Your task to perform on an android device: check the backup settings in the google photos Image 0: 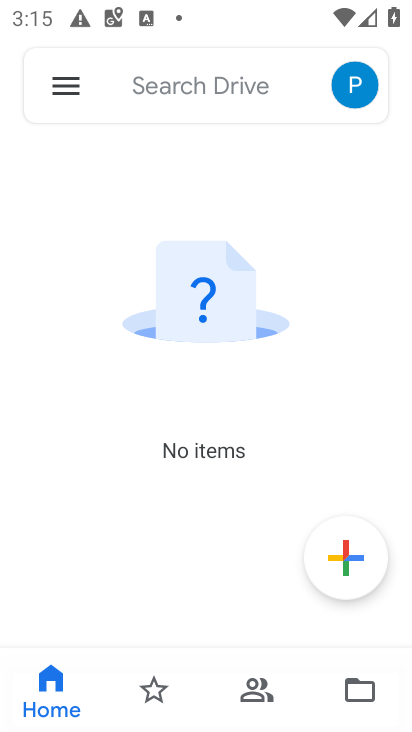
Step 0: press home button
Your task to perform on an android device: check the backup settings in the google photos Image 1: 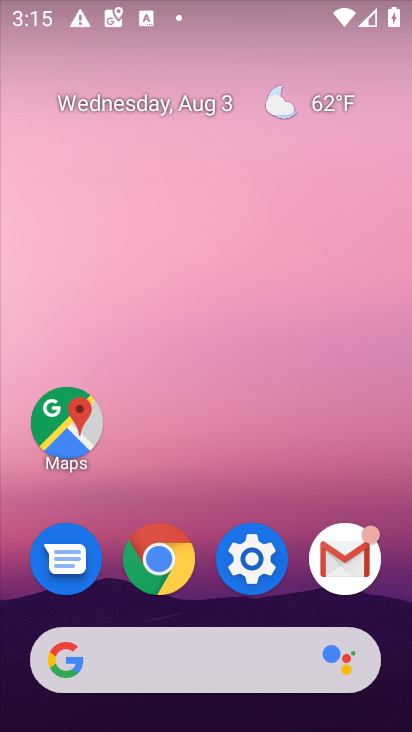
Step 1: drag from (298, 698) to (204, 323)
Your task to perform on an android device: check the backup settings in the google photos Image 2: 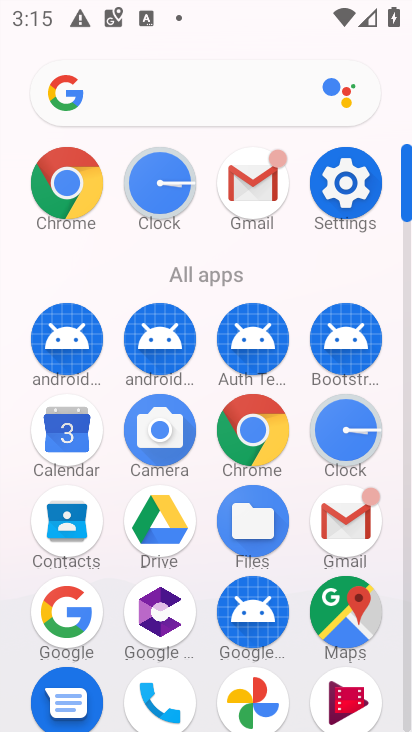
Step 2: click (244, 713)
Your task to perform on an android device: check the backup settings in the google photos Image 3: 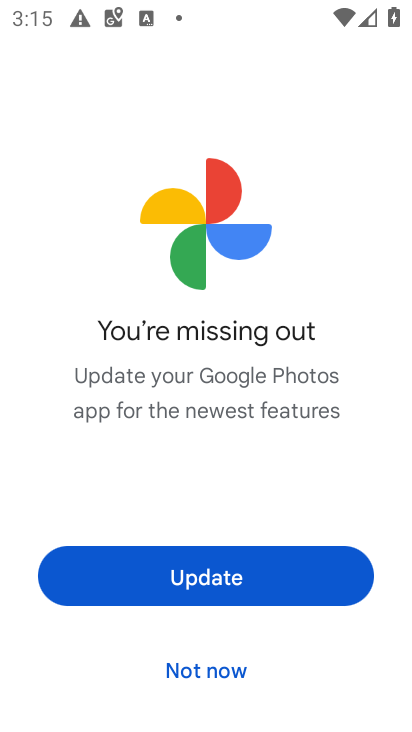
Step 3: click (227, 653)
Your task to perform on an android device: check the backup settings in the google photos Image 4: 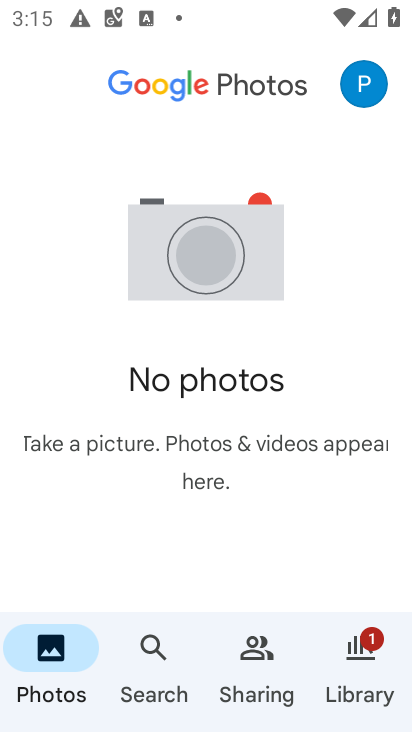
Step 4: click (358, 106)
Your task to perform on an android device: check the backup settings in the google photos Image 5: 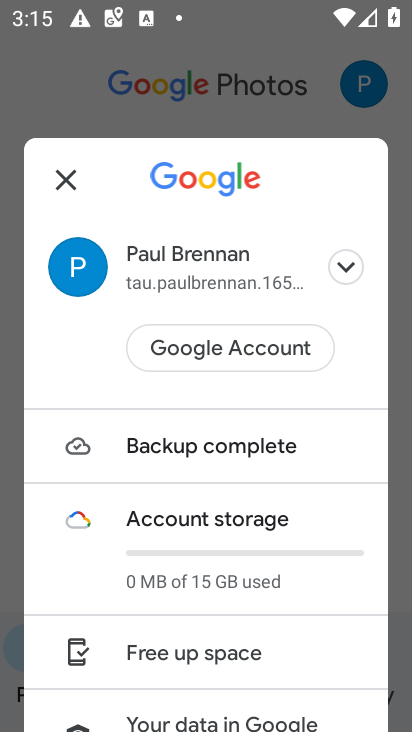
Step 5: drag from (192, 705) to (149, 486)
Your task to perform on an android device: check the backup settings in the google photos Image 6: 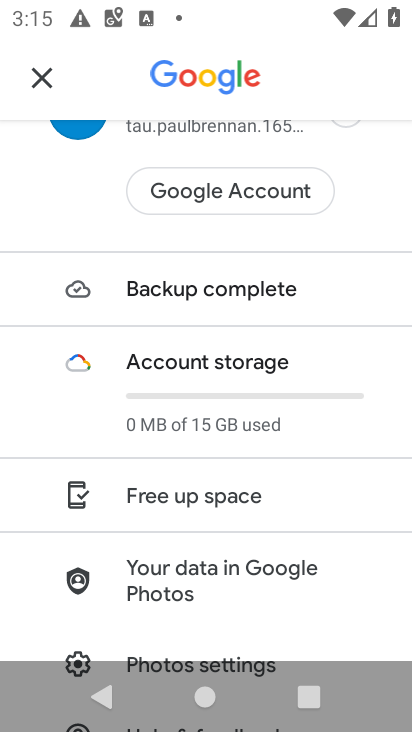
Step 6: click (179, 653)
Your task to perform on an android device: check the backup settings in the google photos Image 7: 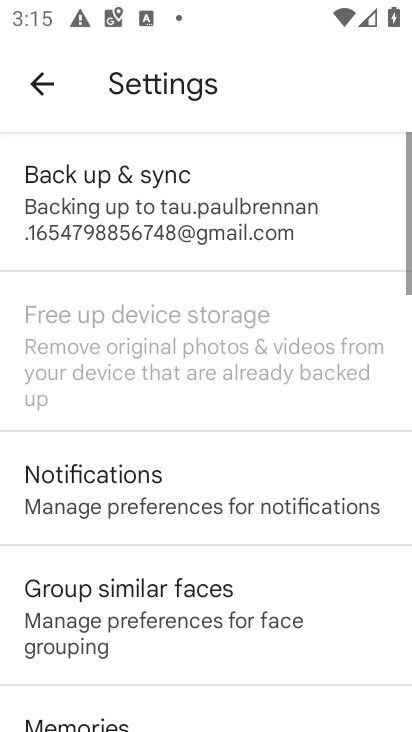
Step 7: click (116, 183)
Your task to perform on an android device: check the backup settings in the google photos Image 8: 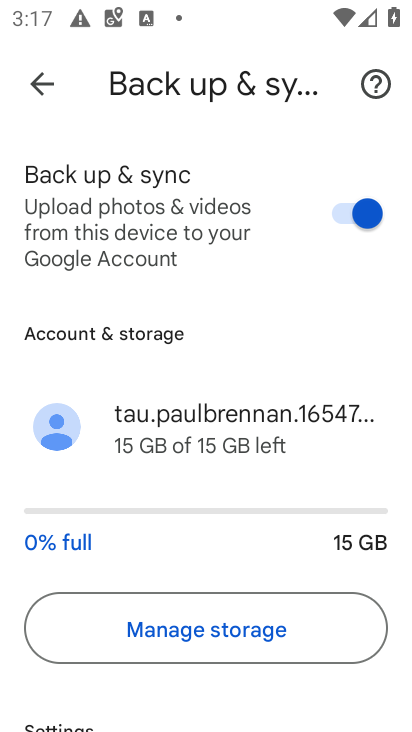
Step 8: task complete